Your task to perform on an android device: turn pop-ups off in chrome Image 0: 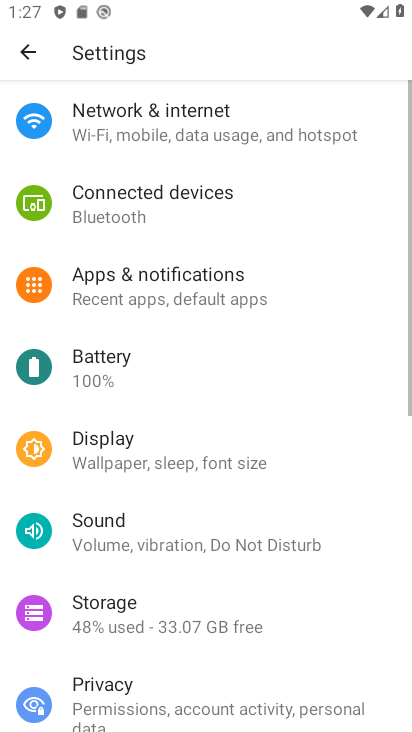
Step 0: press home button
Your task to perform on an android device: turn pop-ups off in chrome Image 1: 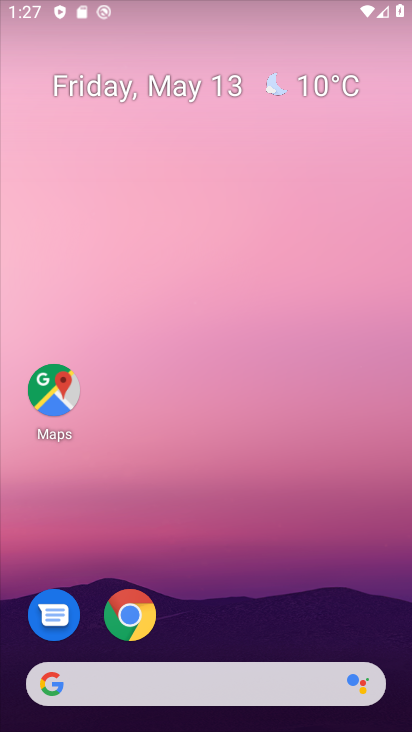
Step 1: drag from (215, 603) to (32, 144)
Your task to perform on an android device: turn pop-ups off in chrome Image 2: 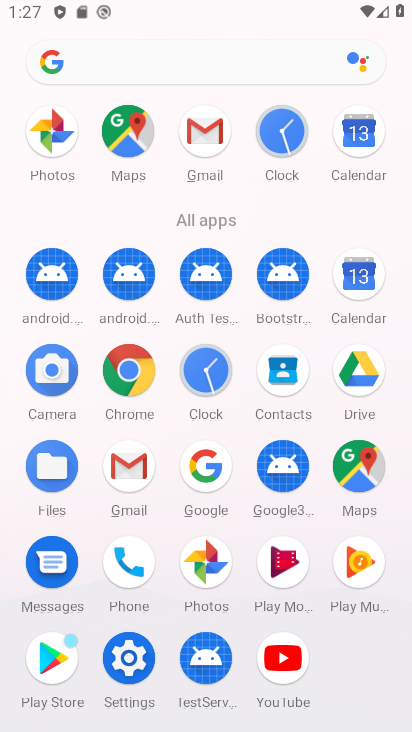
Step 2: click (132, 381)
Your task to perform on an android device: turn pop-ups off in chrome Image 3: 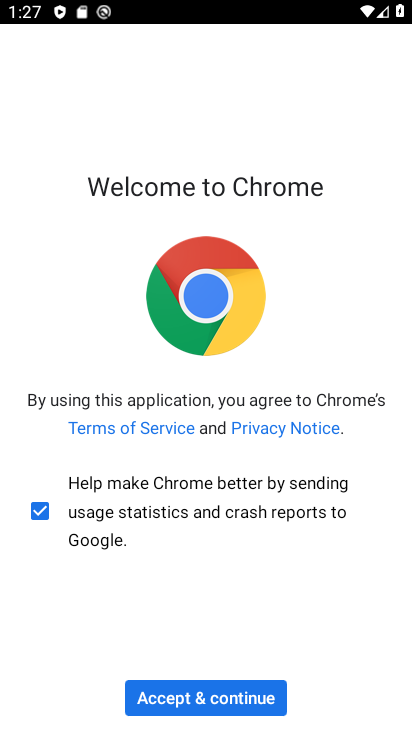
Step 3: click (224, 705)
Your task to perform on an android device: turn pop-ups off in chrome Image 4: 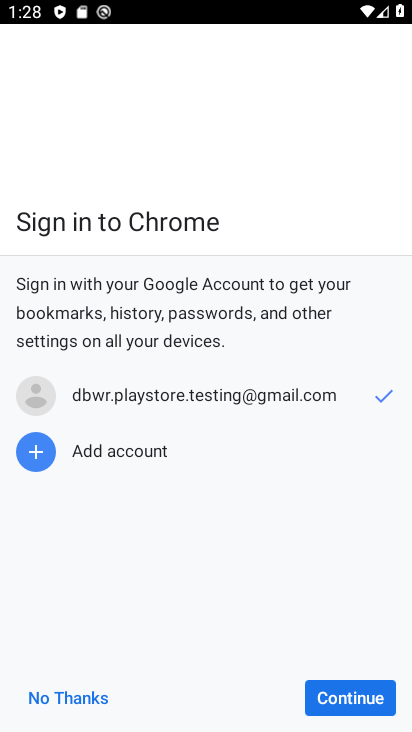
Step 4: click (370, 696)
Your task to perform on an android device: turn pop-ups off in chrome Image 5: 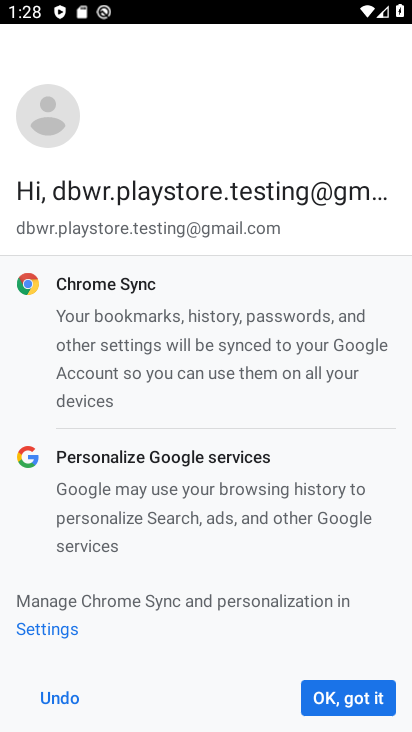
Step 5: click (371, 696)
Your task to perform on an android device: turn pop-ups off in chrome Image 6: 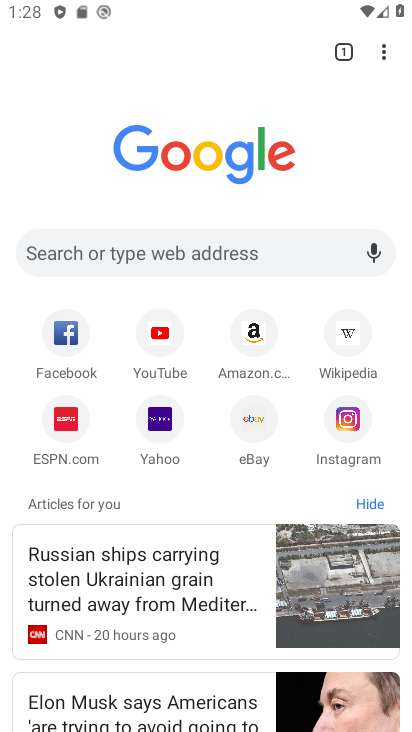
Step 6: click (384, 50)
Your task to perform on an android device: turn pop-ups off in chrome Image 7: 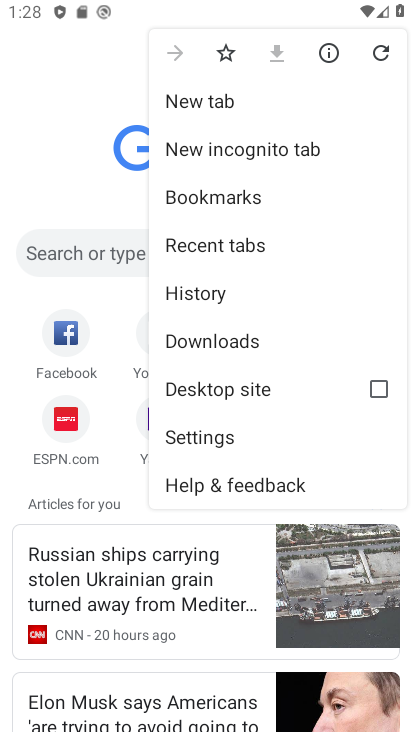
Step 7: click (205, 434)
Your task to perform on an android device: turn pop-ups off in chrome Image 8: 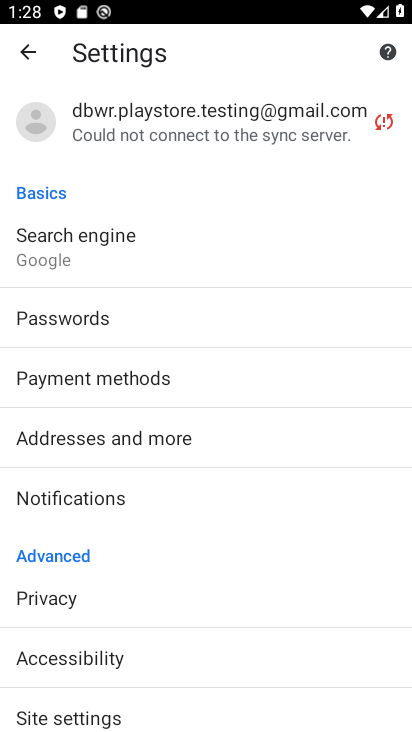
Step 8: click (96, 715)
Your task to perform on an android device: turn pop-ups off in chrome Image 9: 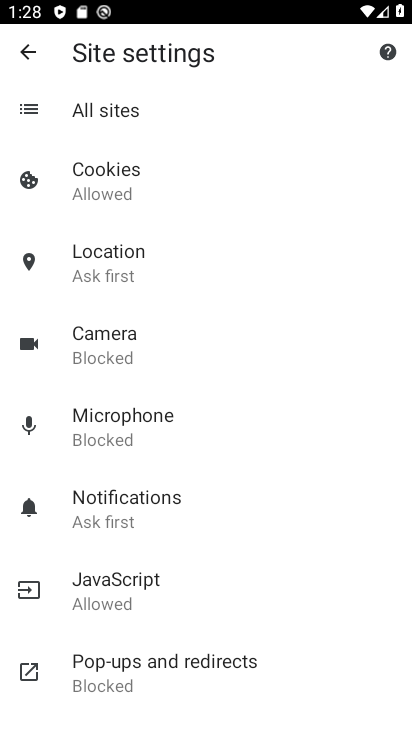
Step 9: click (166, 676)
Your task to perform on an android device: turn pop-ups off in chrome Image 10: 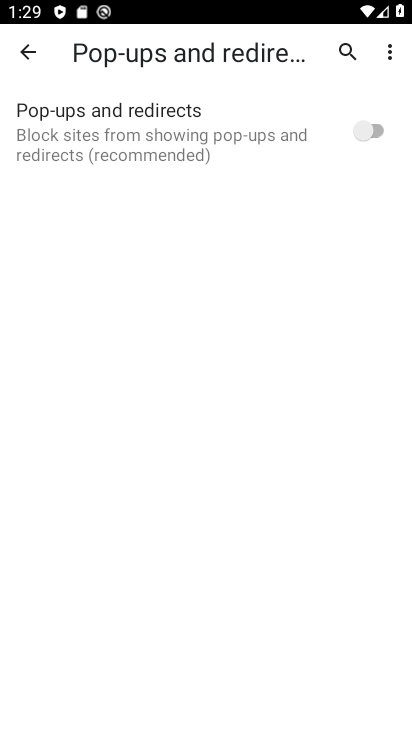
Step 10: task complete